Your task to perform on an android device: Open the stopwatch Image 0: 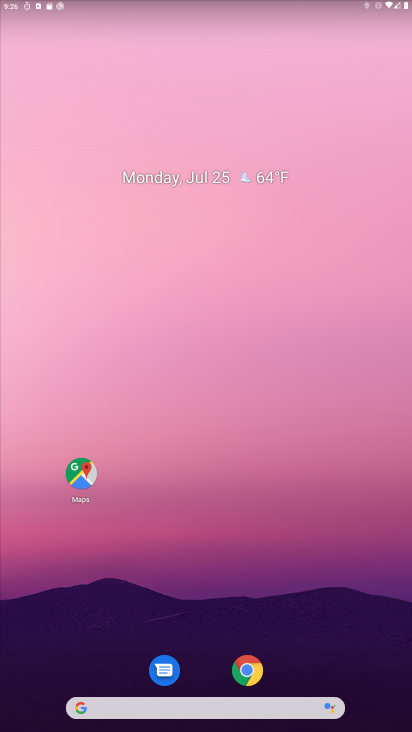
Step 0: drag from (346, 647) to (177, 14)
Your task to perform on an android device: Open the stopwatch Image 1: 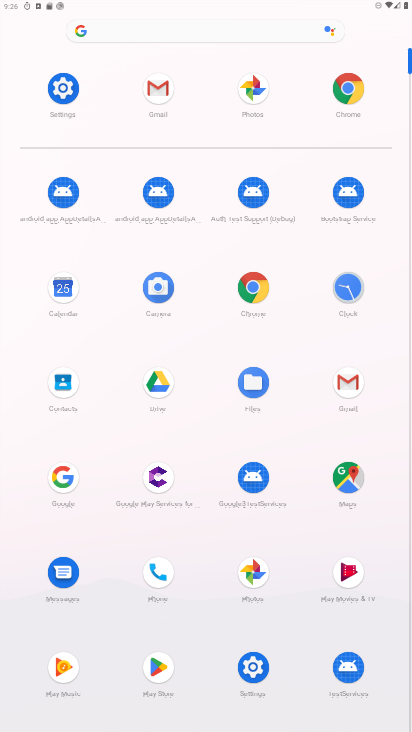
Step 1: click (343, 281)
Your task to perform on an android device: Open the stopwatch Image 2: 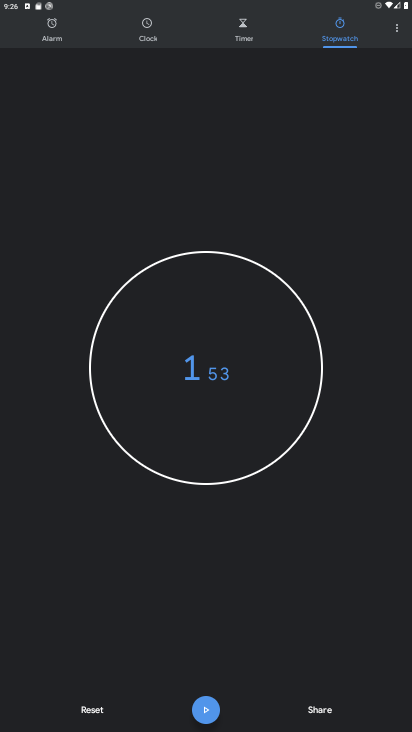
Step 2: task complete